Your task to perform on an android device: find which apps use the phone's location Image 0: 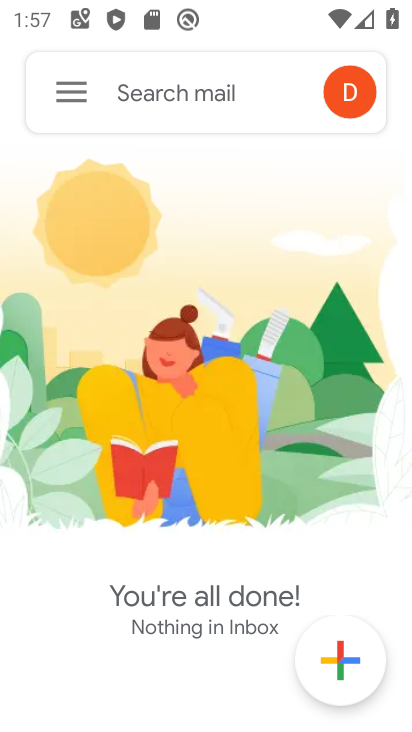
Step 0: press home button
Your task to perform on an android device: find which apps use the phone's location Image 1: 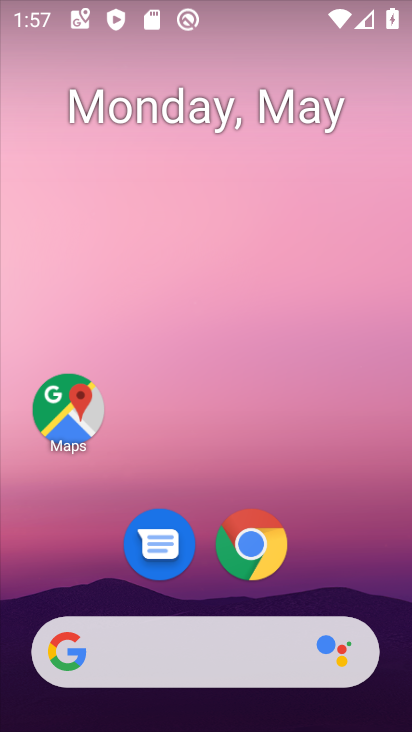
Step 1: drag from (369, 580) to (332, 256)
Your task to perform on an android device: find which apps use the phone's location Image 2: 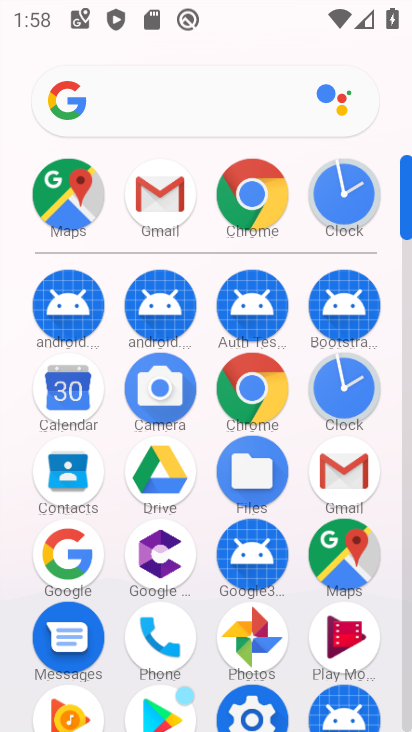
Step 2: drag from (200, 605) to (196, 443)
Your task to perform on an android device: find which apps use the phone's location Image 3: 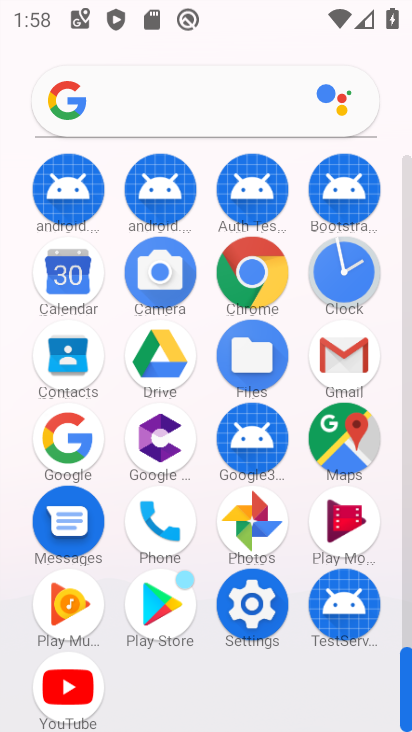
Step 3: click (257, 616)
Your task to perform on an android device: find which apps use the phone's location Image 4: 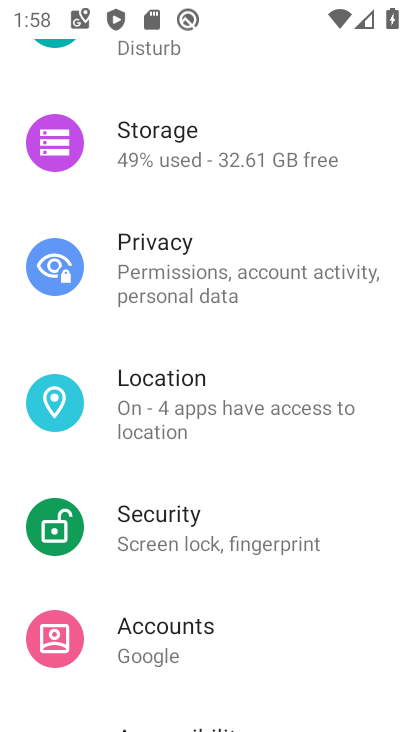
Step 4: drag from (317, 466) to (343, 548)
Your task to perform on an android device: find which apps use the phone's location Image 5: 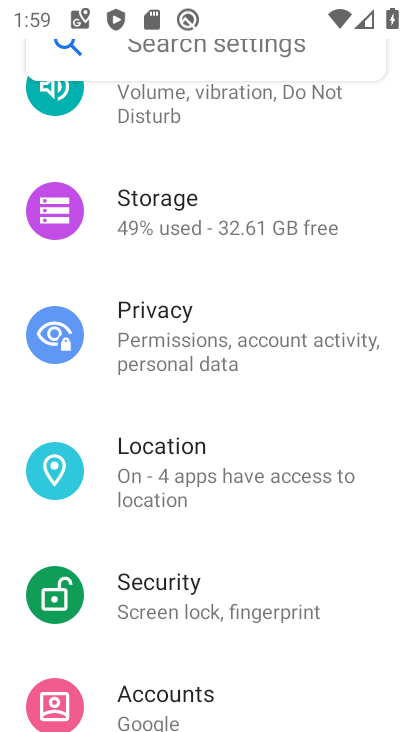
Step 5: drag from (390, 600) to (337, 501)
Your task to perform on an android device: find which apps use the phone's location Image 6: 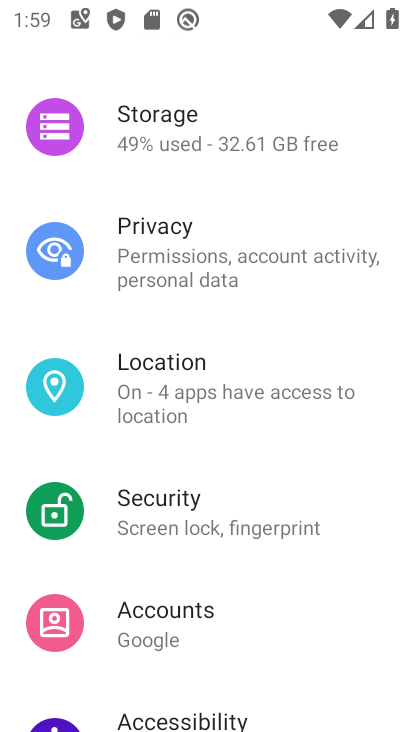
Step 6: click (311, 397)
Your task to perform on an android device: find which apps use the phone's location Image 7: 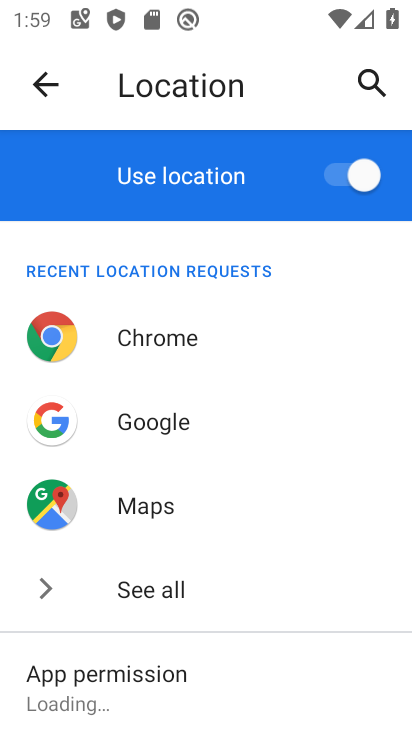
Step 7: drag from (273, 495) to (283, 439)
Your task to perform on an android device: find which apps use the phone's location Image 8: 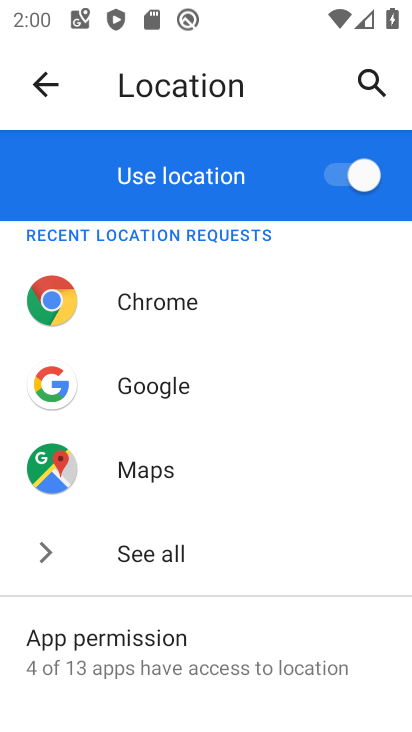
Step 8: click (184, 659)
Your task to perform on an android device: find which apps use the phone's location Image 9: 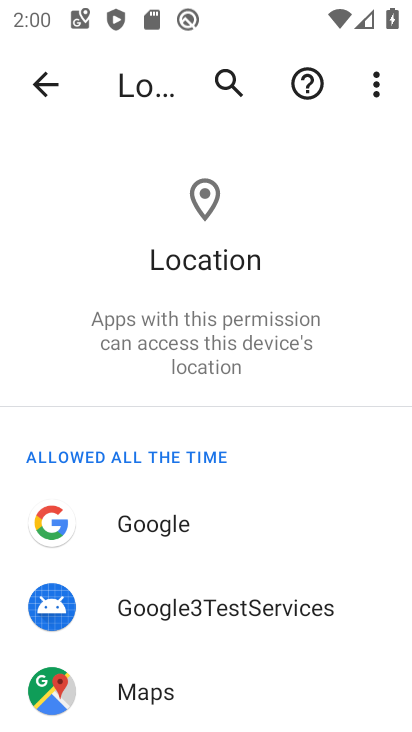
Step 9: drag from (264, 601) to (267, 441)
Your task to perform on an android device: find which apps use the phone's location Image 10: 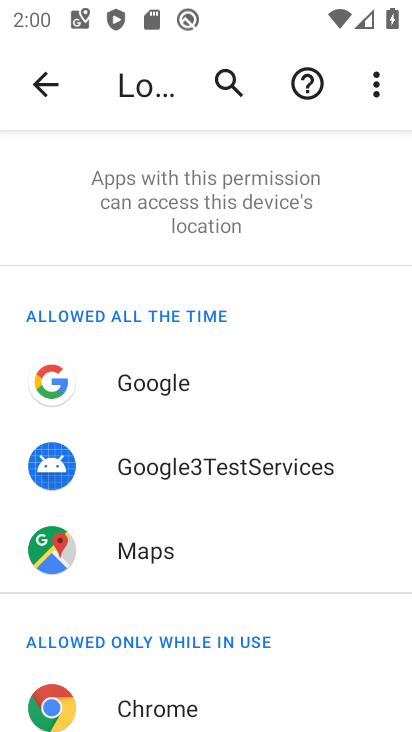
Step 10: drag from (299, 630) to (292, 480)
Your task to perform on an android device: find which apps use the phone's location Image 11: 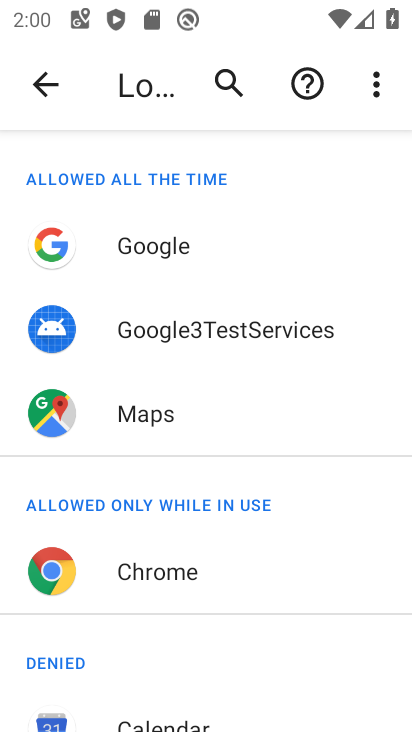
Step 11: drag from (304, 618) to (284, 504)
Your task to perform on an android device: find which apps use the phone's location Image 12: 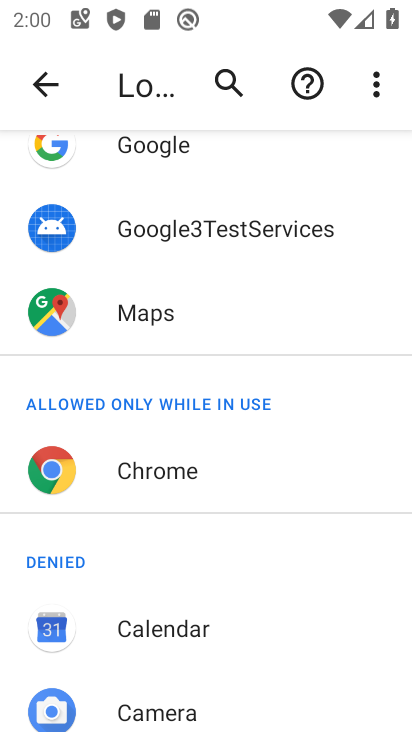
Step 12: drag from (308, 700) to (310, 628)
Your task to perform on an android device: find which apps use the phone's location Image 13: 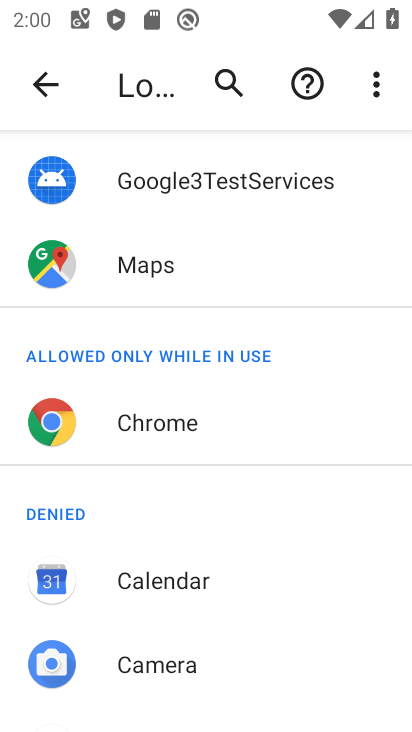
Step 13: drag from (303, 580) to (314, 276)
Your task to perform on an android device: find which apps use the phone's location Image 14: 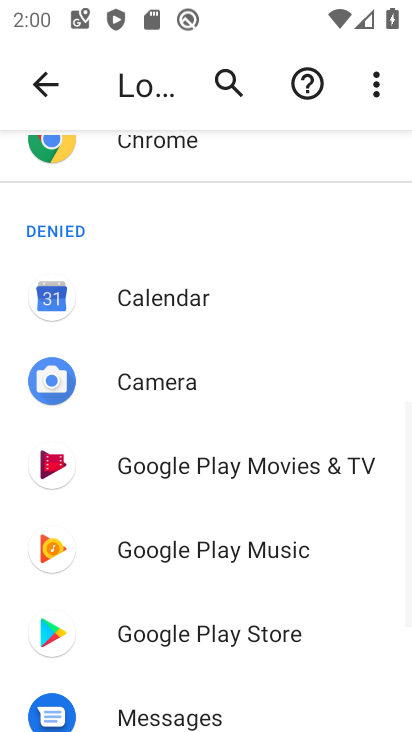
Step 14: drag from (311, 629) to (334, 350)
Your task to perform on an android device: find which apps use the phone's location Image 15: 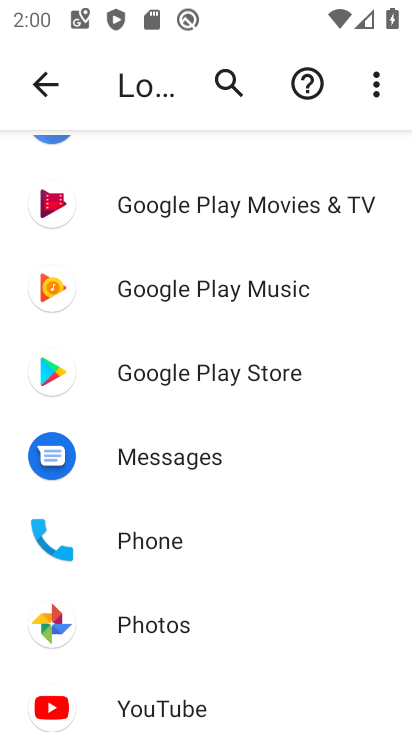
Step 15: click (213, 641)
Your task to perform on an android device: find which apps use the phone's location Image 16: 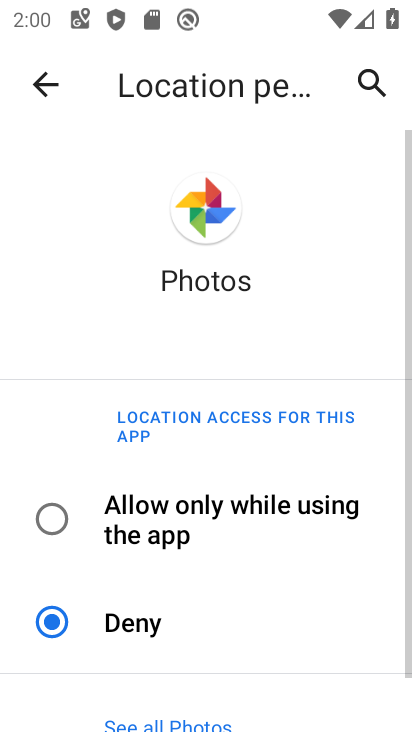
Step 16: click (87, 501)
Your task to perform on an android device: find which apps use the phone's location Image 17: 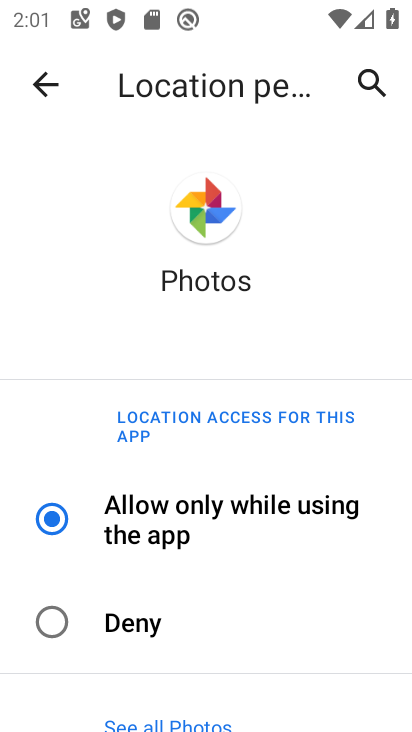
Step 17: task complete